Your task to perform on an android device: empty trash in google photos Image 0: 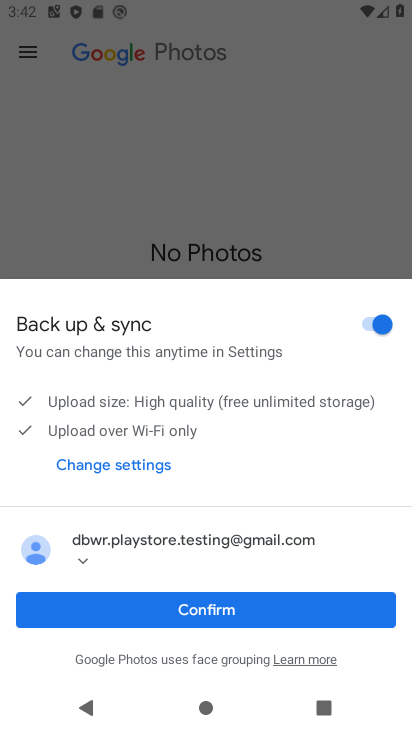
Step 0: click (149, 616)
Your task to perform on an android device: empty trash in google photos Image 1: 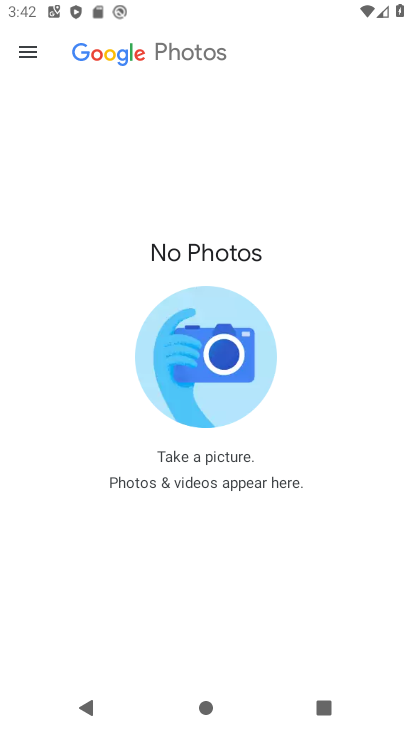
Step 1: click (13, 52)
Your task to perform on an android device: empty trash in google photos Image 2: 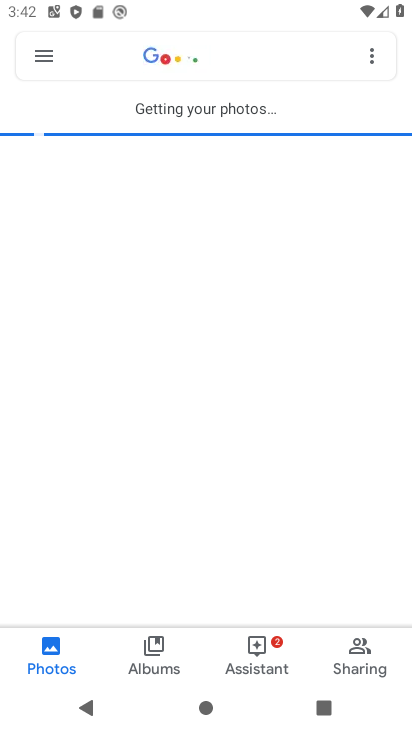
Step 2: click (42, 52)
Your task to perform on an android device: empty trash in google photos Image 3: 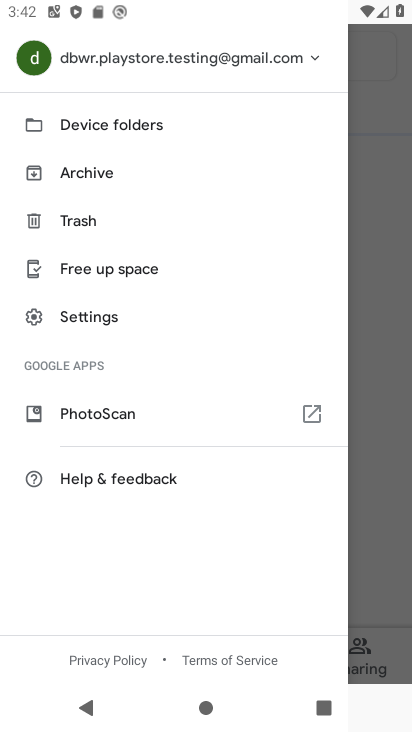
Step 3: click (105, 218)
Your task to perform on an android device: empty trash in google photos Image 4: 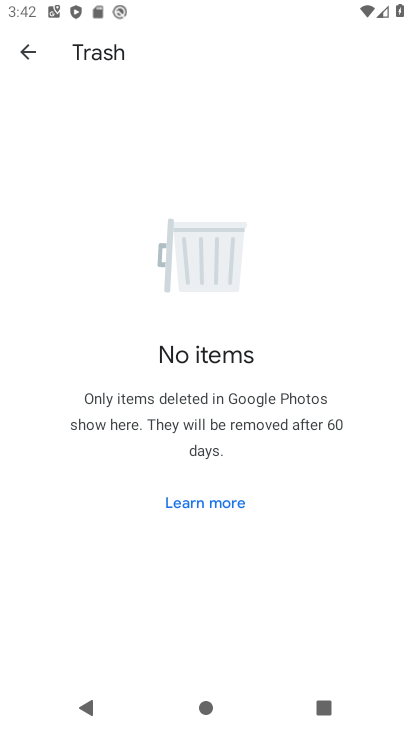
Step 4: task complete